Your task to perform on an android device: Open the phone app and click the voicemail tab. Image 0: 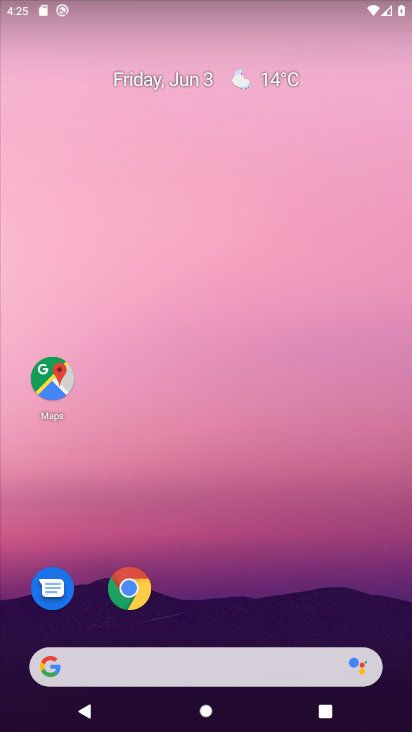
Step 0: drag from (239, 388) to (224, 12)
Your task to perform on an android device: Open the phone app and click the voicemail tab. Image 1: 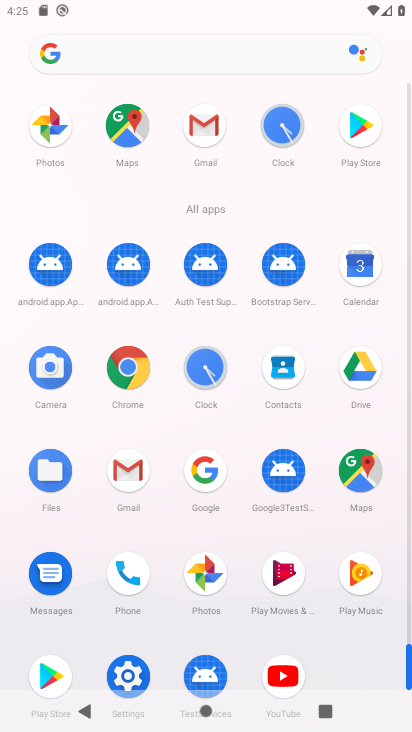
Step 1: drag from (9, 602) to (14, 326)
Your task to perform on an android device: Open the phone app and click the voicemail tab. Image 2: 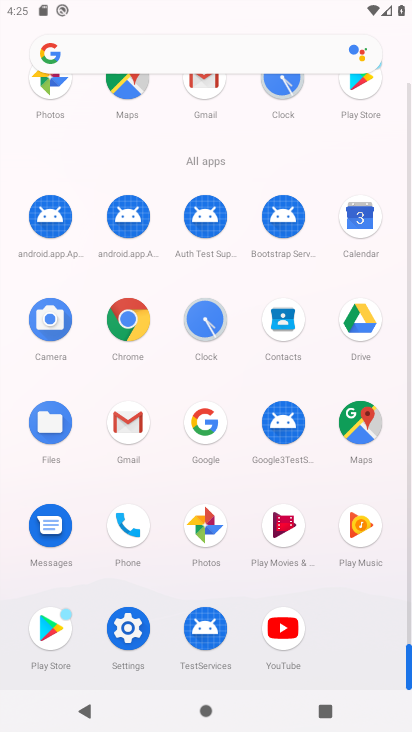
Step 2: click (125, 521)
Your task to perform on an android device: Open the phone app and click the voicemail tab. Image 3: 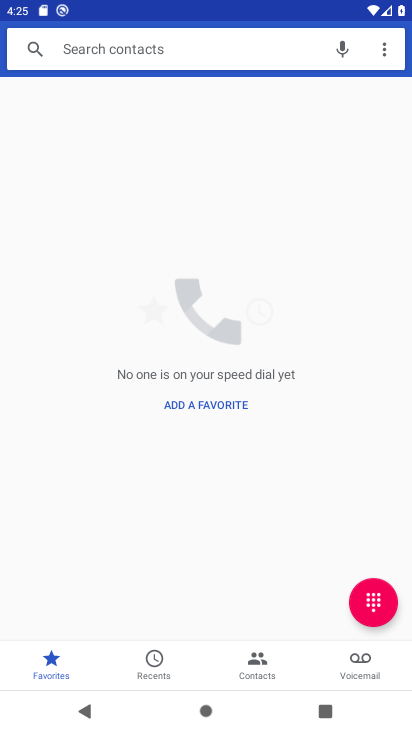
Step 3: click (356, 651)
Your task to perform on an android device: Open the phone app and click the voicemail tab. Image 4: 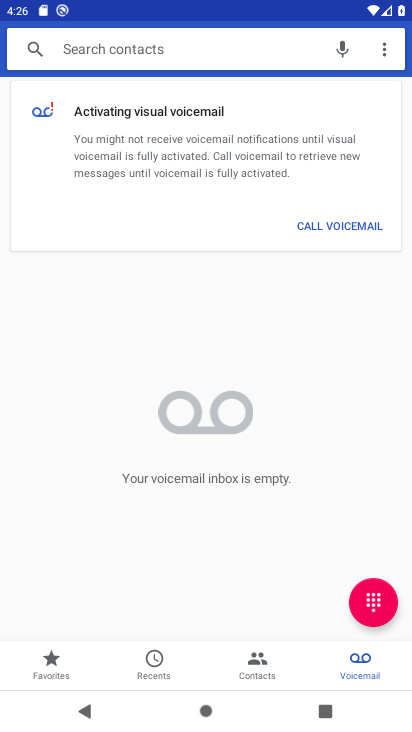
Step 4: task complete